Your task to perform on an android device: clear all cookies in the chrome app Image 0: 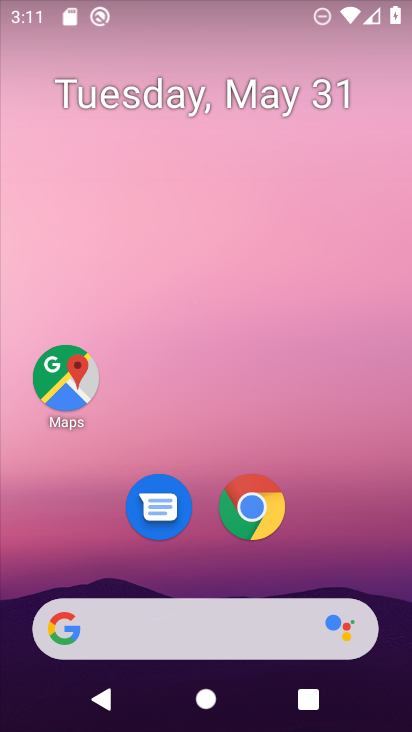
Step 0: click (262, 507)
Your task to perform on an android device: clear all cookies in the chrome app Image 1: 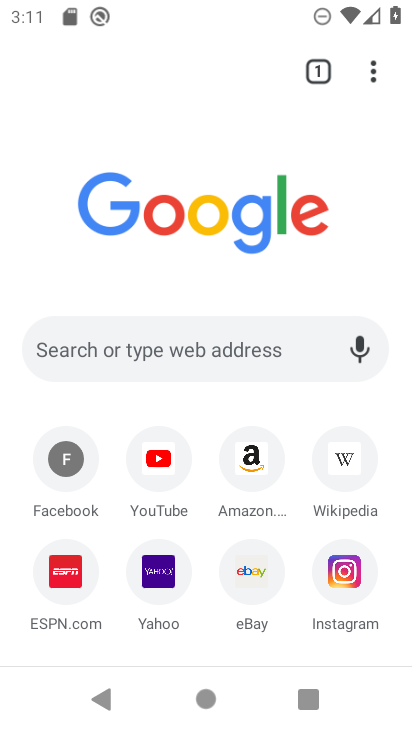
Step 1: click (379, 64)
Your task to perform on an android device: clear all cookies in the chrome app Image 2: 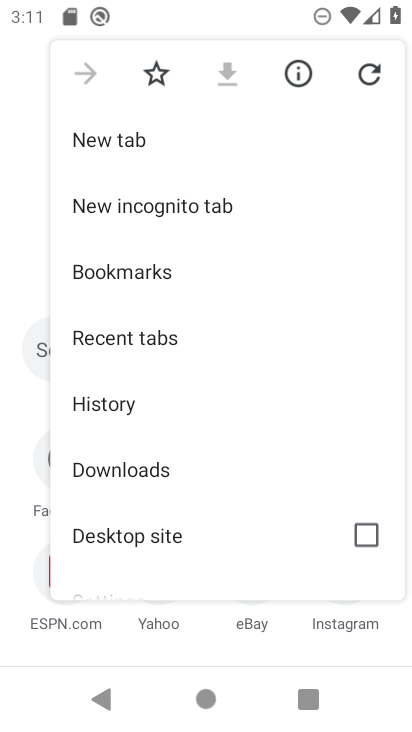
Step 2: drag from (208, 528) to (211, 158)
Your task to perform on an android device: clear all cookies in the chrome app Image 3: 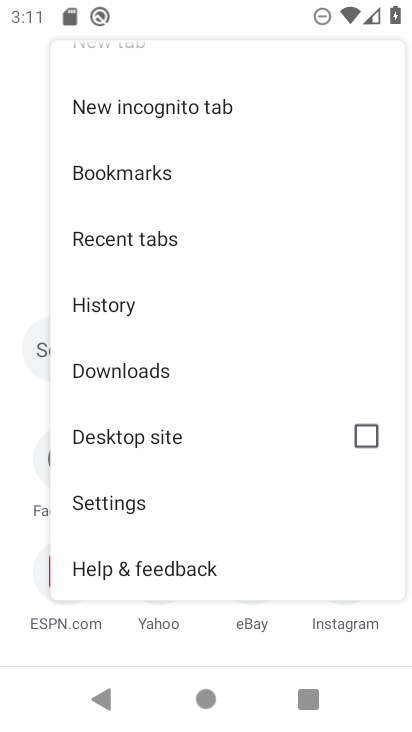
Step 3: click (123, 498)
Your task to perform on an android device: clear all cookies in the chrome app Image 4: 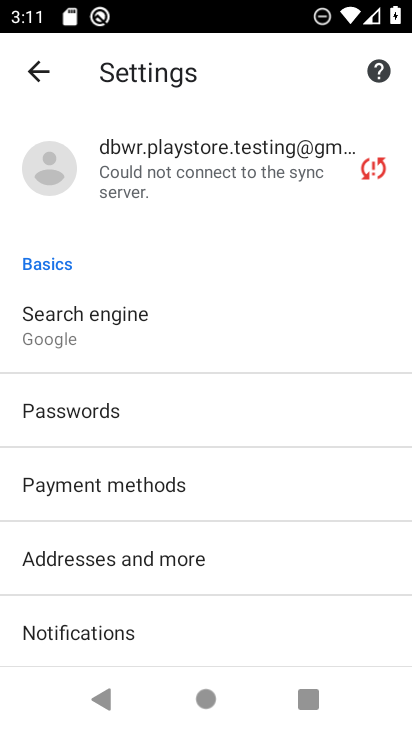
Step 4: drag from (187, 592) to (183, 212)
Your task to perform on an android device: clear all cookies in the chrome app Image 5: 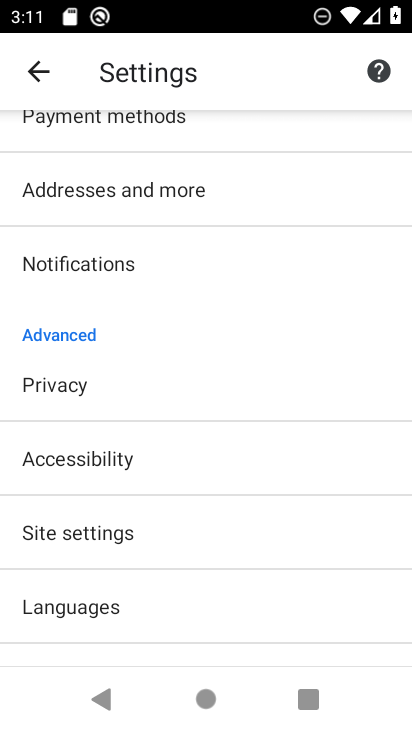
Step 5: click (84, 412)
Your task to perform on an android device: clear all cookies in the chrome app Image 6: 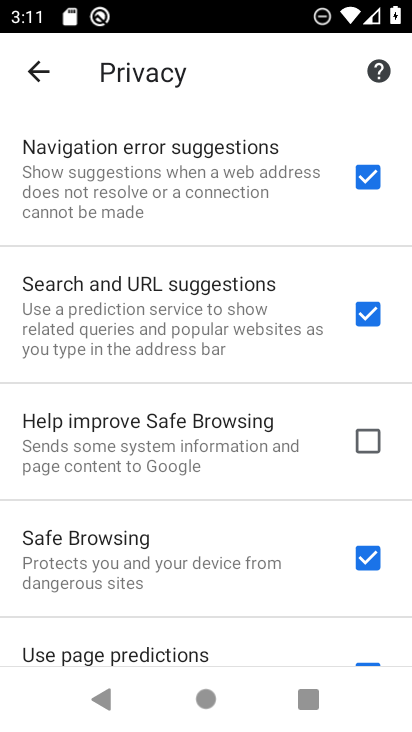
Step 6: drag from (200, 618) to (202, 228)
Your task to perform on an android device: clear all cookies in the chrome app Image 7: 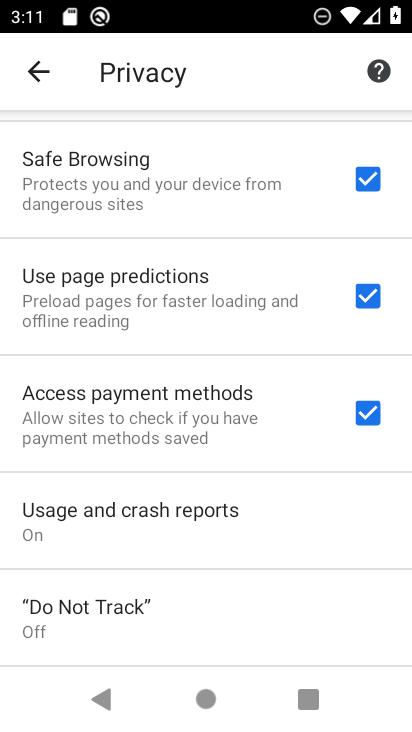
Step 7: drag from (260, 595) to (260, 274)
Your task to perform on an android device: clear all cookies in the chrome app Image 8: 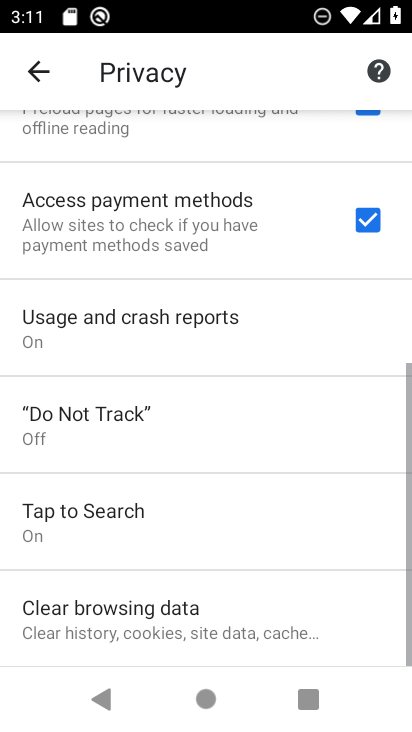
Step 8: click (179, 619)
Your task to perform on an android device: clear all cookies in the chrome app Image 9: 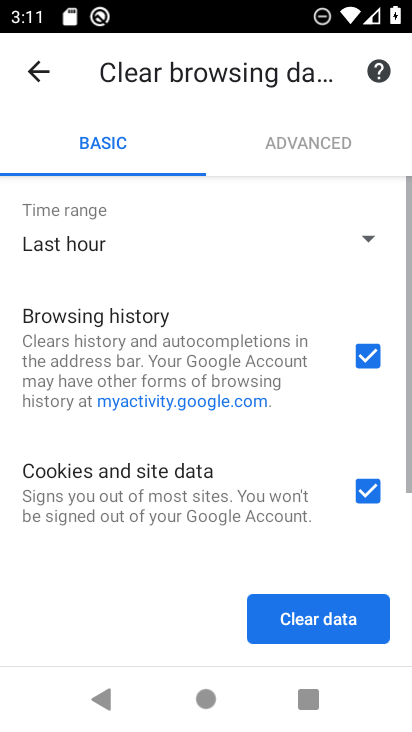
Step 9: click (366, 362)
Your task to perform on an android device: clear all cookies in the chrome app Image 10: 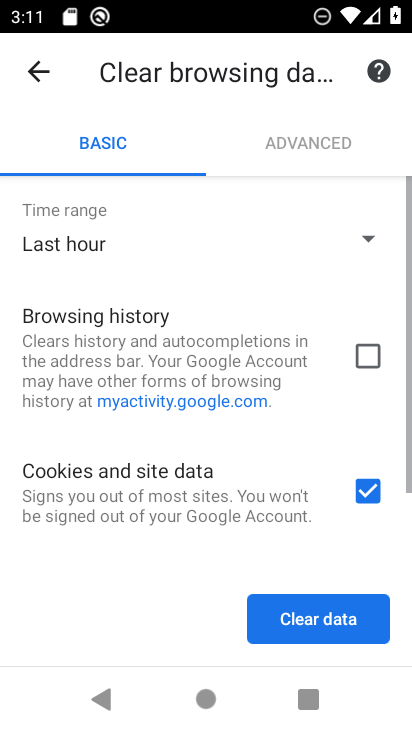
Step 10: click (360, 228)
Your task to perform on an android device: clear all cookies in the chrome app Image 11: 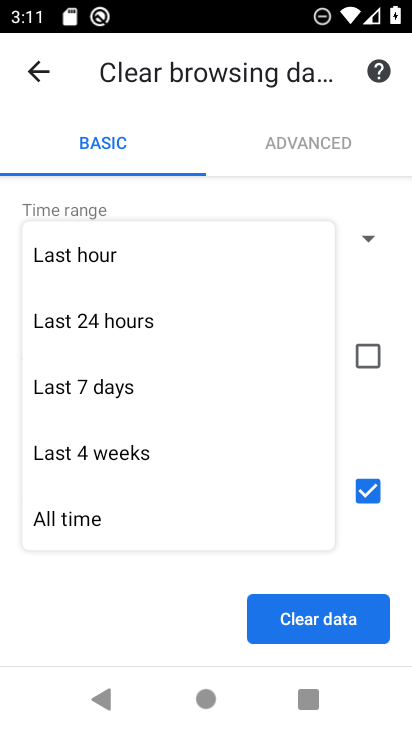
Step 11: click (66, 517)
Your task to perform on an android device: clear all cookies in the chrome app Image 12: 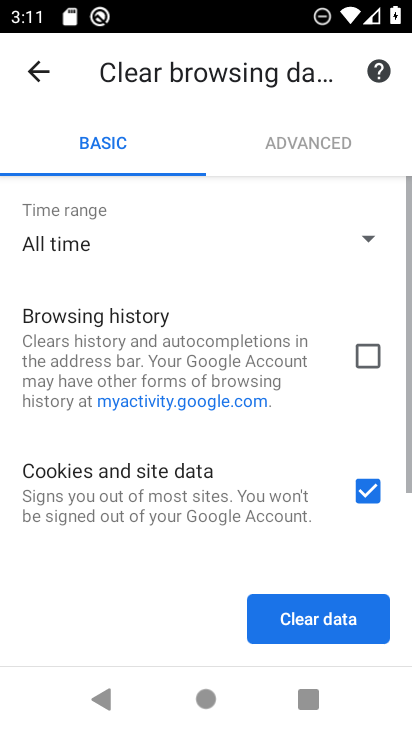
Step 12: drag from (248, 510) to (292, 201)
Your task to perform on an android device: clear all cookies in the chrome app Image 13: 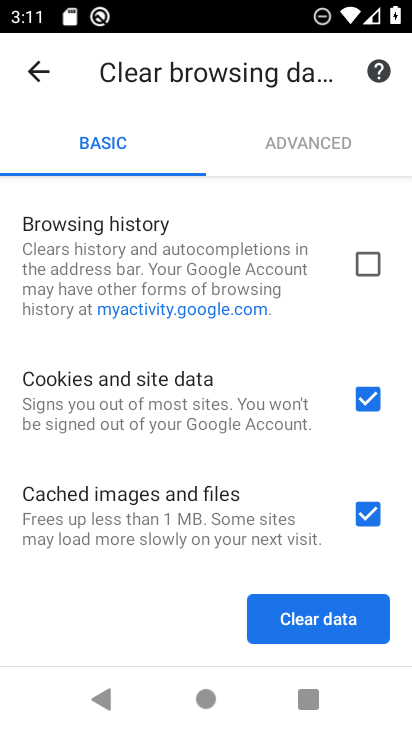
Step 13: click (360, 514)
Your task to perform on an android device: clear all cookies in the chrome app Image 14: 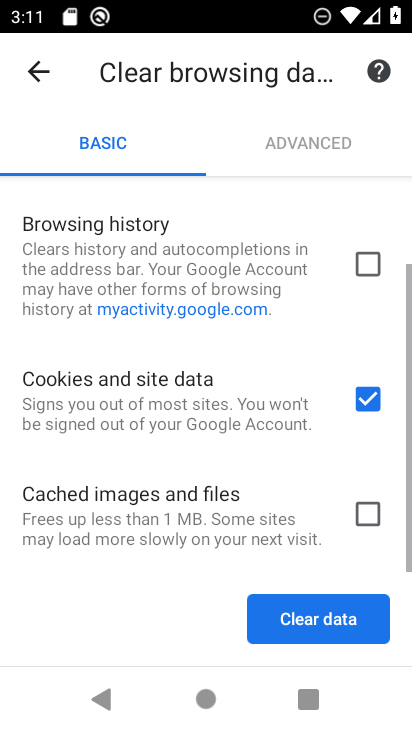
Step 14: click (317, 642)
Your task to perform on an android device: clear all cookies in the chrome app Image 15: 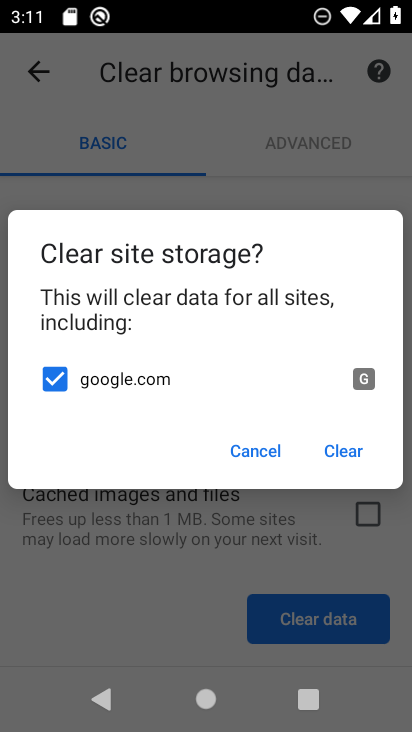
Step 15: click (341, 453)
Your task to perform on an android device: clear all cookies in the chrome app Image 16: 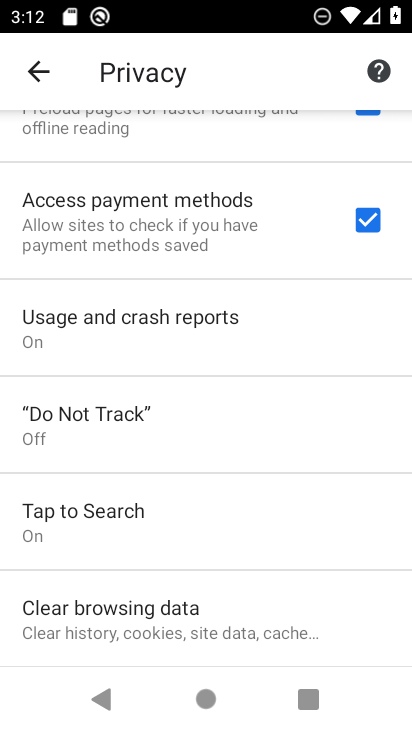
Step 16: task complete